Your task to perform on an android device: turn on airplane mode Image 0: 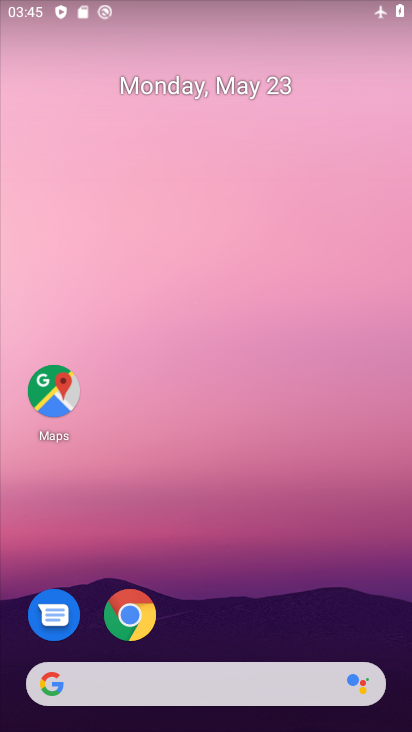
Step 0: drag from (241, 549) to (289, 158)
Your task to perform on an android device: turn on airplane mode Image 1: 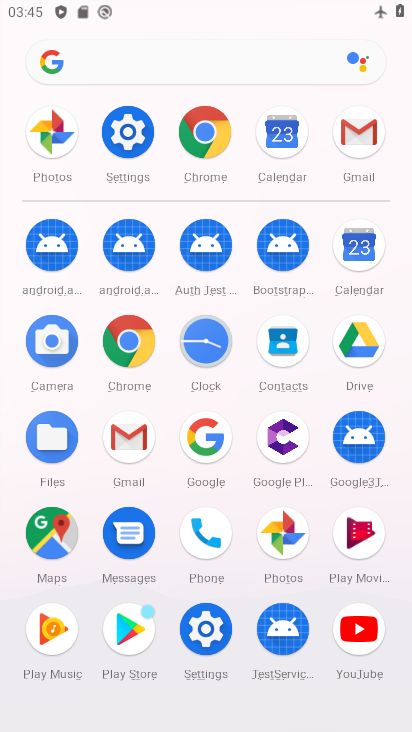
Step 1: click (136, 125)
Your task to perform on an android device: turn on airplane mode Image 2: 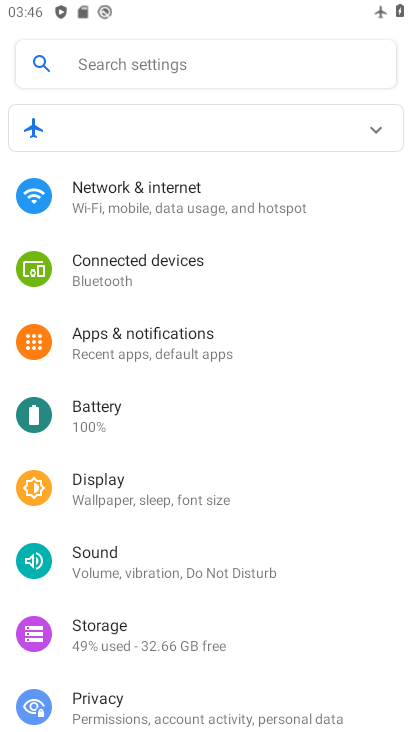
Step 2: click (216, 200)
Your task to perform on an android device: turn on airplane mode Image 3: 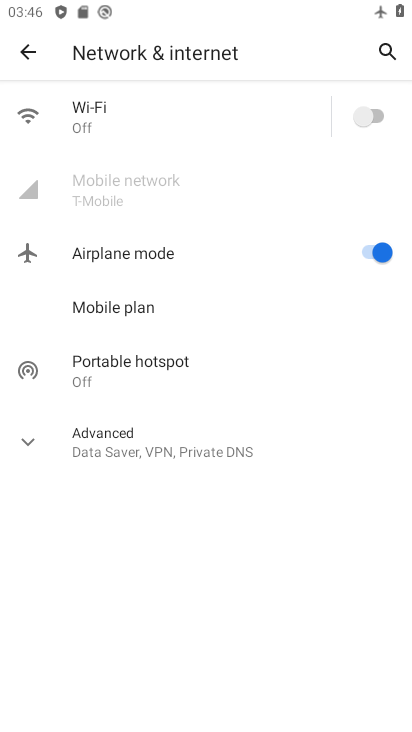
Step 3: task complete